Your task to perform on an android device: Show me popular games on the Play Store Image 0: 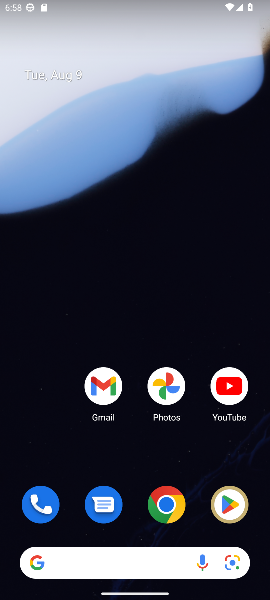
Step 0: press home button
Your task to perform on an android device: Show me popular games on the Play Store Image 1: 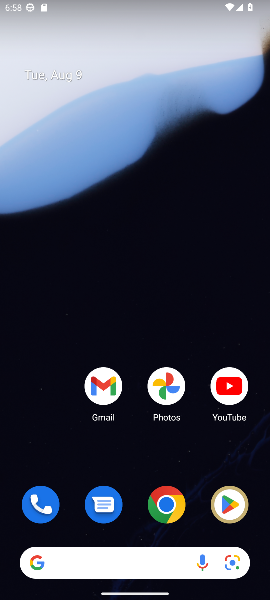
Step 1: drag from (201, 473) to (141, 157)
Your task to perform on an android device: Show me popular games on the Play Store Image 2: 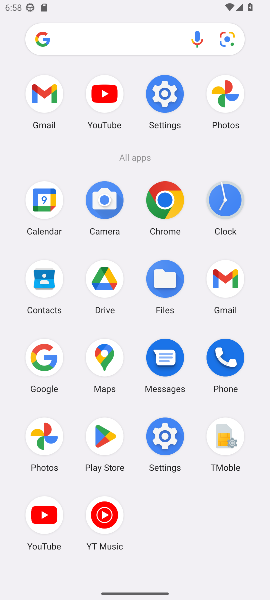
Step 2: click (108, 443)
Your task to perform on an android device: Show me popular games on the Play Store Image 3: 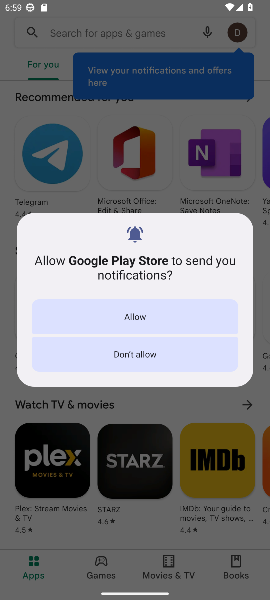
Step 3: click (137, 312)
Your task to perform on an android device: Show me popular games on the Play Store Image 4: 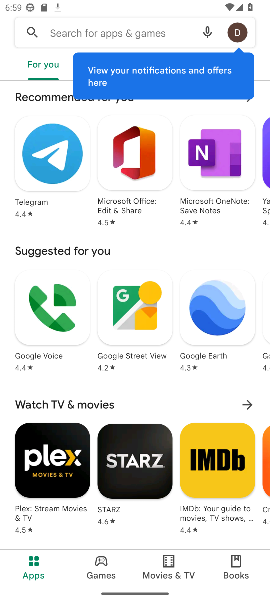
Step 4: click (69, 37)
Your task to perform on an android device: Show me popular games on the Play Store Image 5: 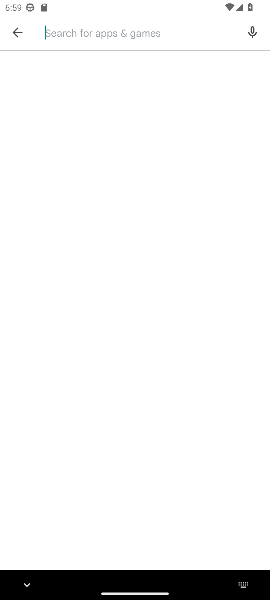
Step 5: type "popular games"
Your task to perform on an android device: Show me popular games on the Play Store Image 6: 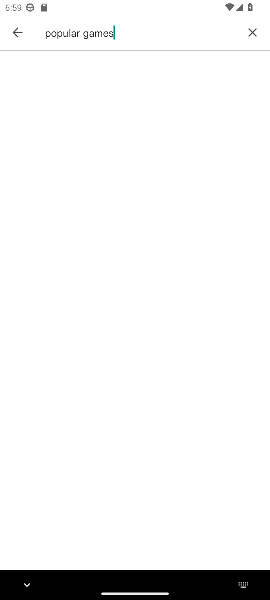
Step 6: type ""
Your task to perform on an android device: Show me popular games on the Play Store Image 7: 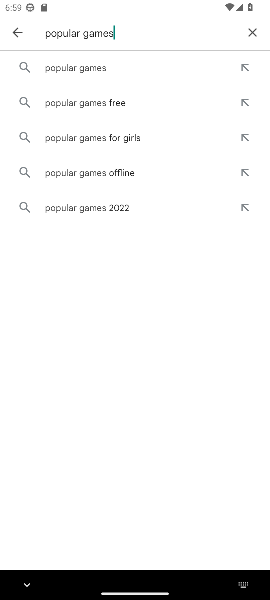
Step 7: click (77, 73)
Your task to perform on an android device: Show me popular games on the Play Store Image 8: 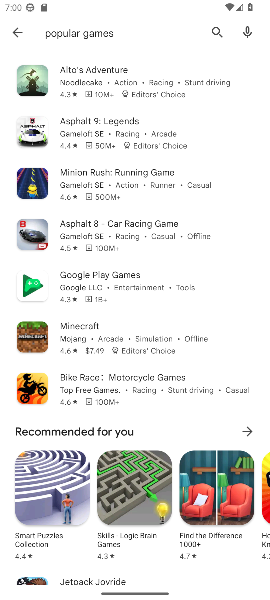
Step 8: task complete